Your task to perform on an android device: change alarm snooze length Image 0: 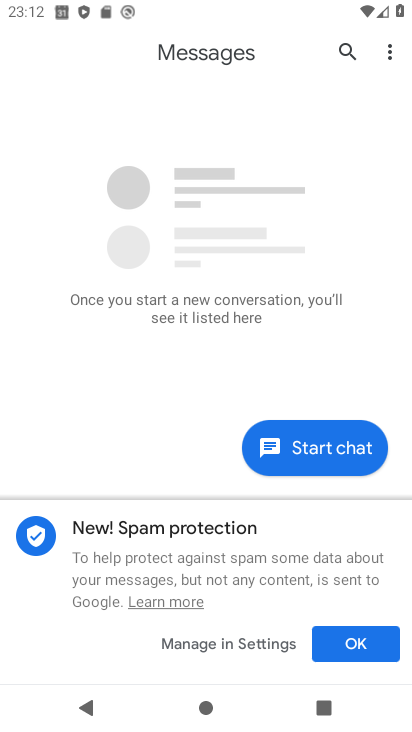
Step 0: press back button
Your task to perform on an android device: change alarm snooze length Image 1: 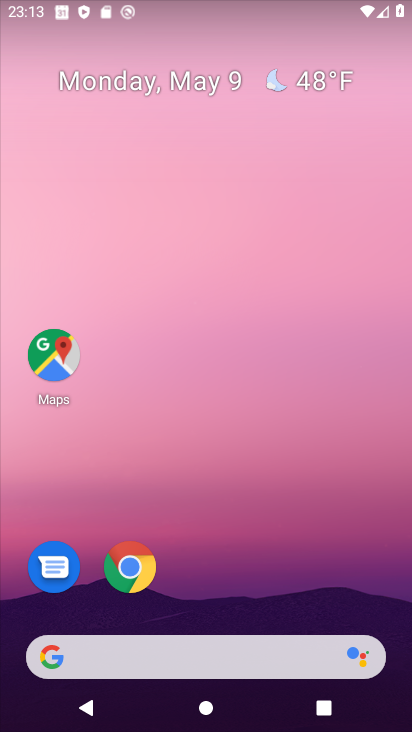
Step 1: drag from (286, 581) to (304, 80)
Your task to perform on an android device: change alarm snooze length Image 2: 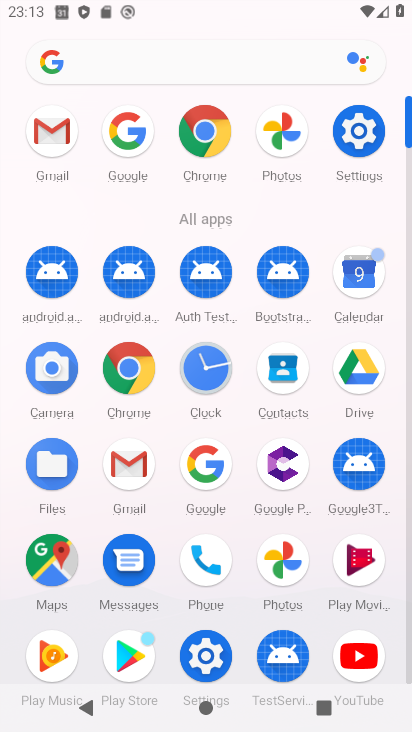
Step 2: click (206, 370)
Your task to perform on an android device: change alarm snooze length Image 3: 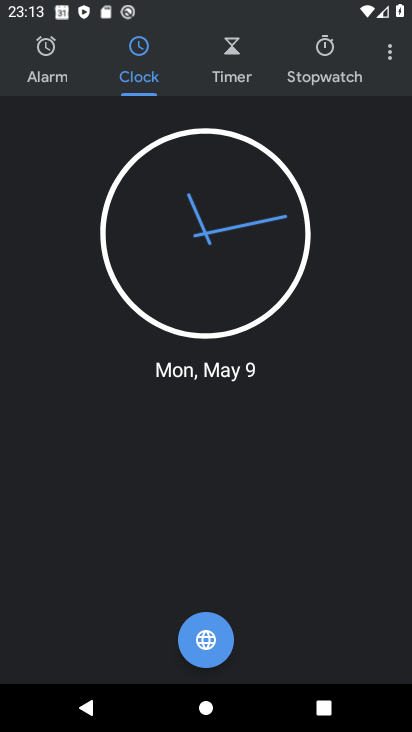
Step 3: click (390, 53)
Your task to perform on an android device: change alarm snooze length Image 4: 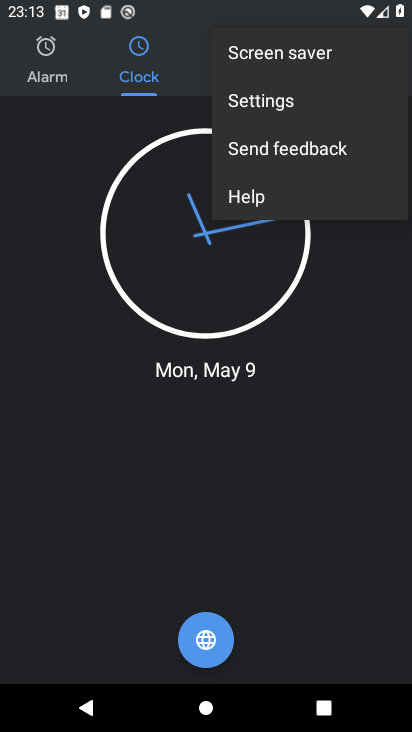
Step 4: click (269, 97)
Your task to perform on an android device: change alarm snooze length Image 5: 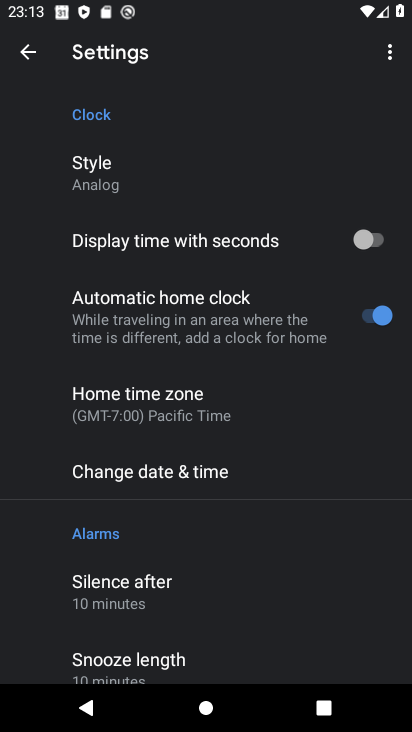
Step 5: drag from (182, 548) to (193, 457)
Your task to perform on an android device: change alarm snooze length Image 6: 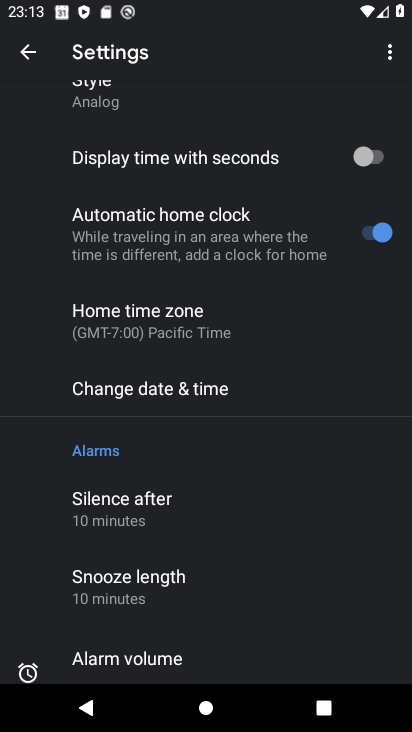
Step 6: click (138, 573)
Your task to perform on an android device: change alarm snooze length Image 7: 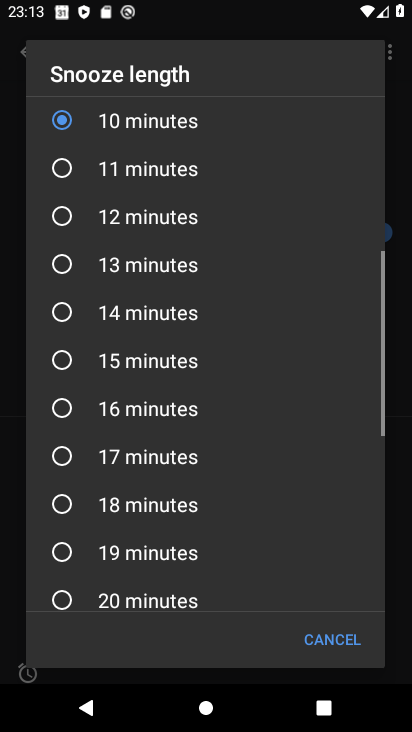
Step 7: click (135, 172)
Your task to perform on an android device: change alarm snooze length Image 8: 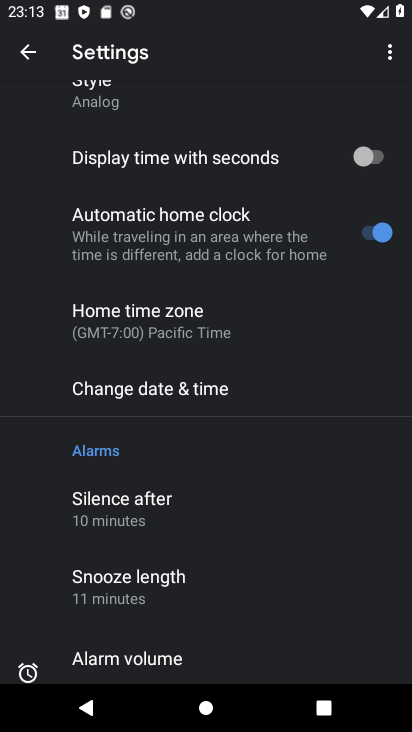
Step 8: task complete